Your task to perform on an android device: toggle airplane mode Image 0: 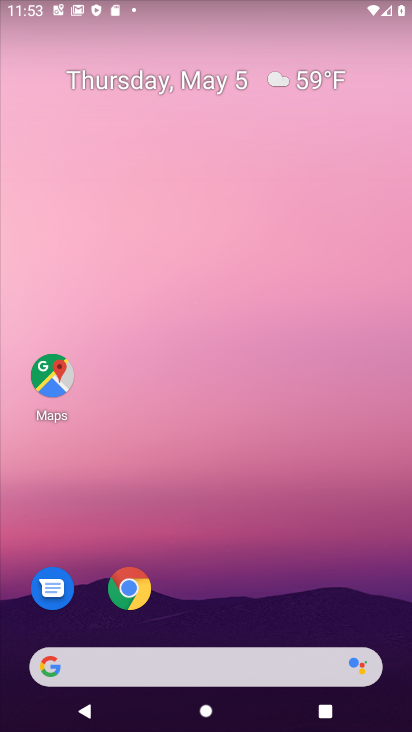
Step 0: drag from (197, 603) to (369, 17)
Your task to perform on an android device: toggle airplane mode Image 1: 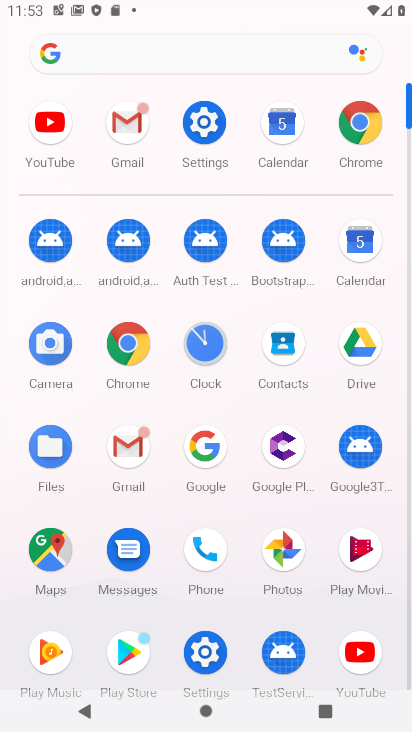
Step 1: click (214, 129)
Your task to perform on an android device: toggle airplane mode Image 2: 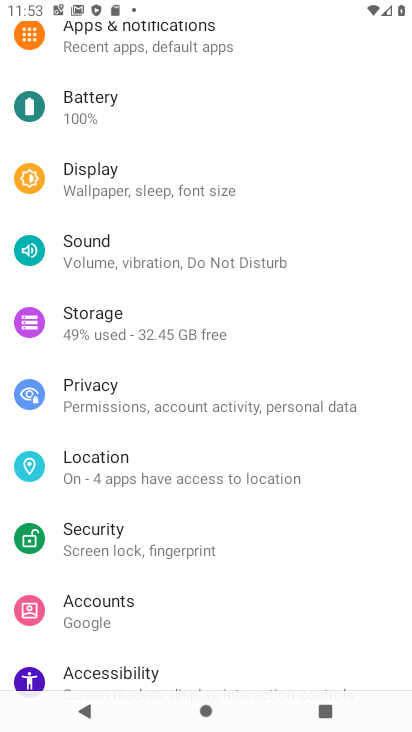
Step 2: drag from (273, 102) to (142, 518)
Your task to perform on an android device: toggle airplane mode Image 3: 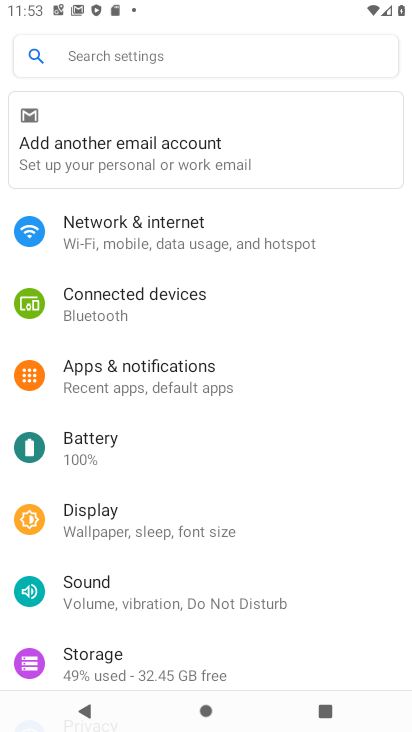
Step 3: click (190, 239)
Your task to perform on an android device: toggle airplane mode Image 4: 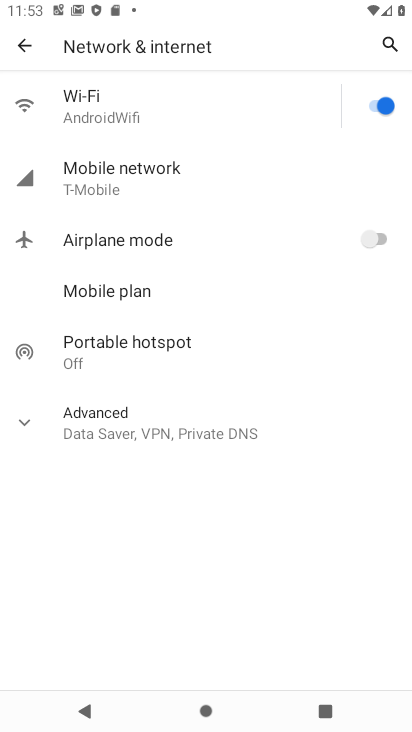
Step 4: click (385, 238)
Your task to perform on an android device: toggle airplane mode Image 5: 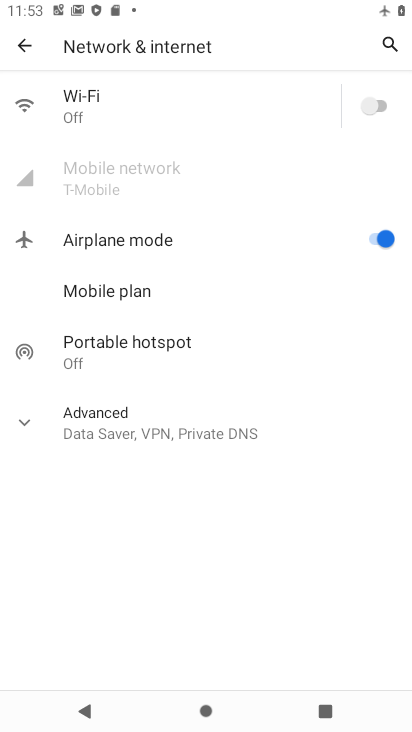
Step 5: task complete